Your task to perform on an android device: turn on airplane mode Image 0: 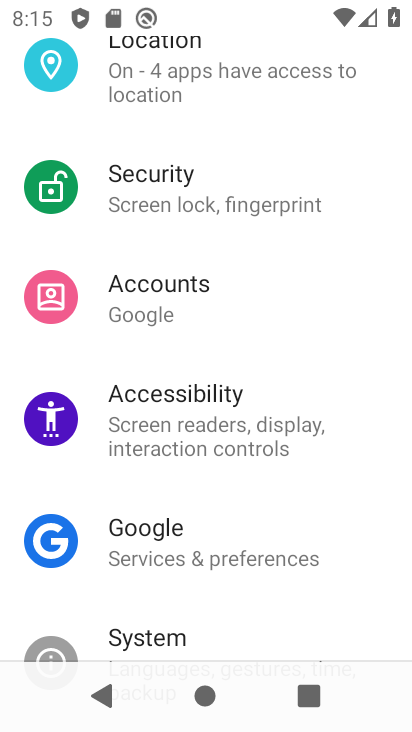
Step 0: drag from (332, 126) to (315, 514)
Your task to perform on an android device: turn on airplane mode Image 1: 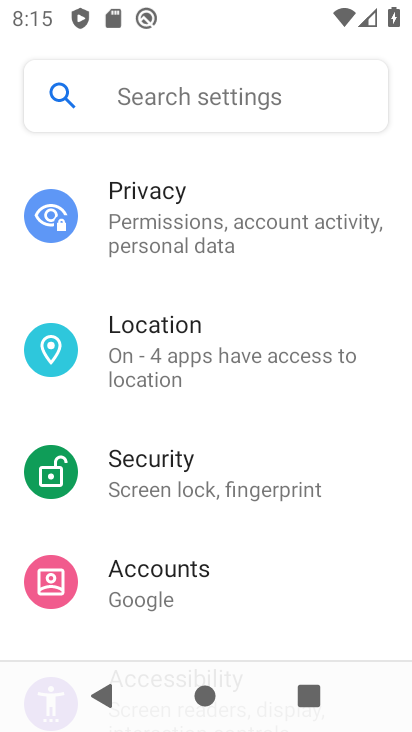
Step 1: drag from (251, 151) to (286, 478)
Your task to perform on an android device: turn on airplane mode Image 2: 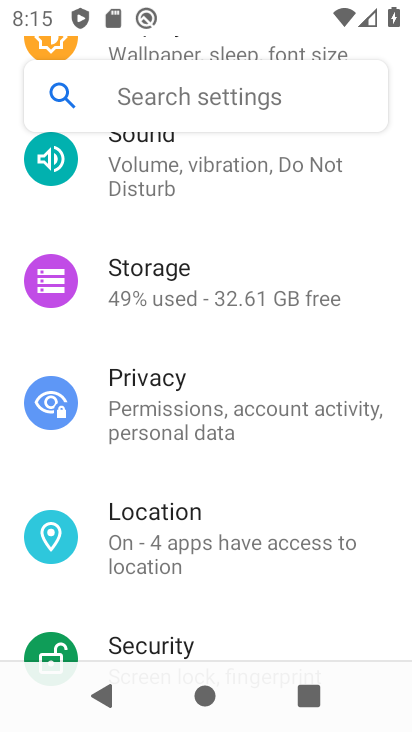
Step 2: drag from (284, 195) to (298, 623)
Your task to perform on an android device: turn on airplane mode Image 3: 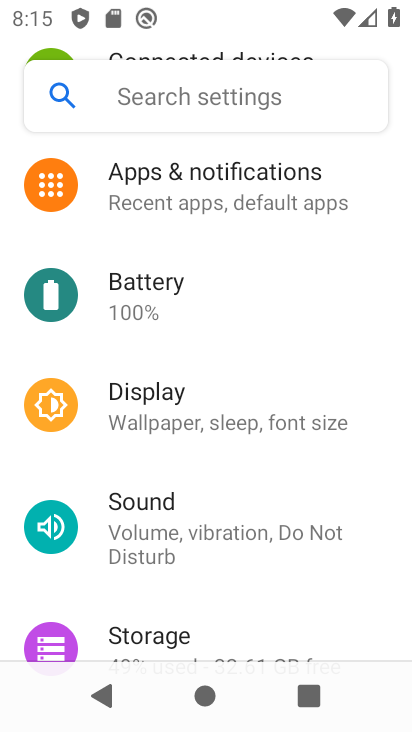
Step 3: drag from (255, 199) to (273, 597)
Your task to perform on an android device: turn on airplane mode Image 4: 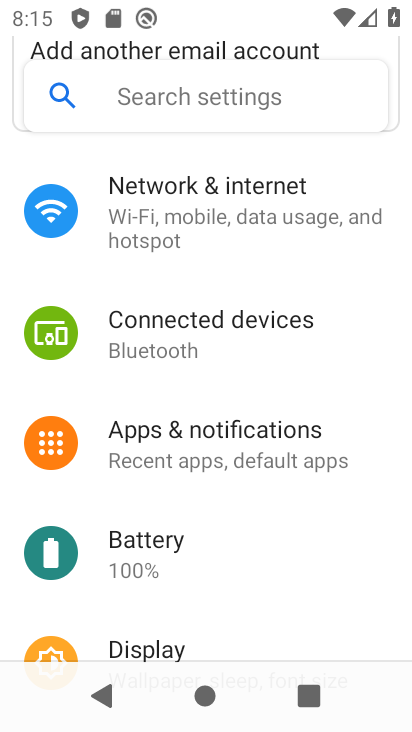
Step 4: click (252, 225)
Your task to perform on an android device: turn on airplane mode Image 5: 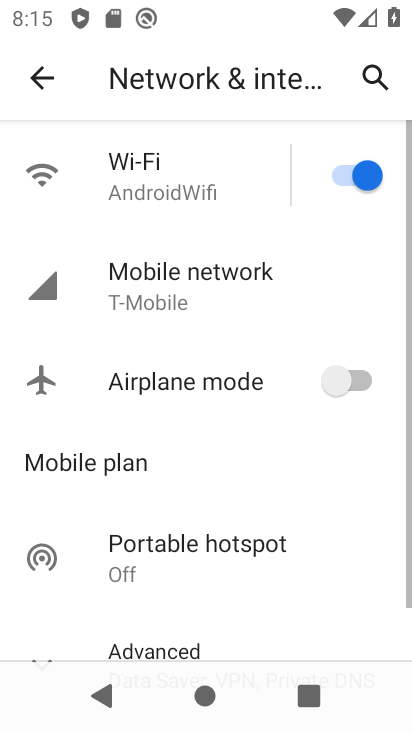
Step 5: click (368, 369)
Your task to perform on an android device: turn on airplane mode Image 6: 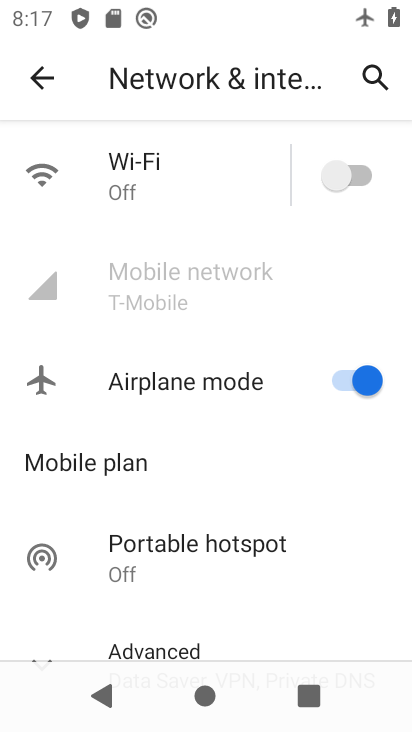
Step 6: task complete